Your task to perform on an android device: open app "HBO Max: Stream TV & Movies" (install if not already installed) Image 0: 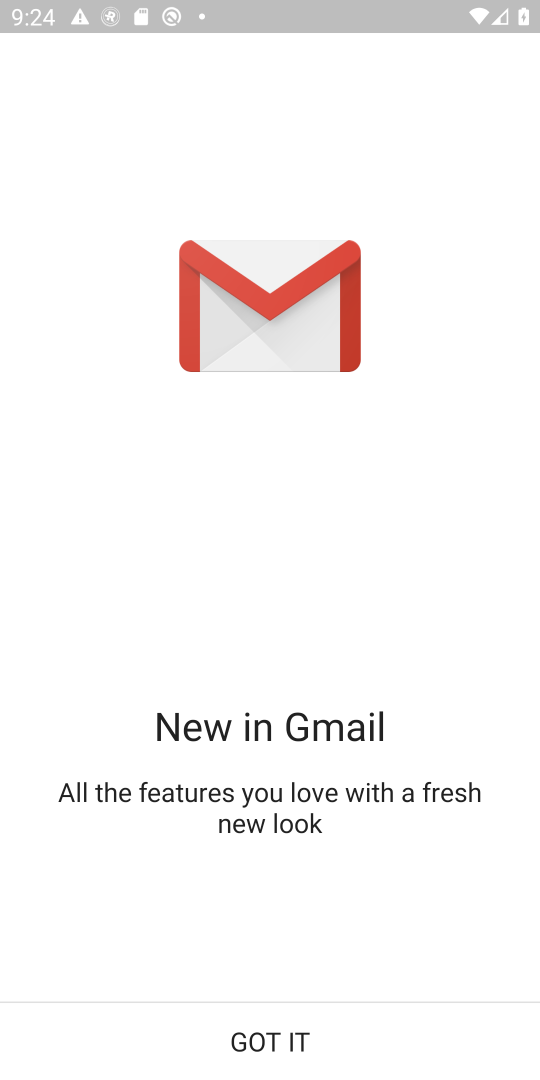
Step 0: press home button
Your task to perform on an android device: open app "HBO Max: Stream TV & Movies" (install if not already installed) Image 1: 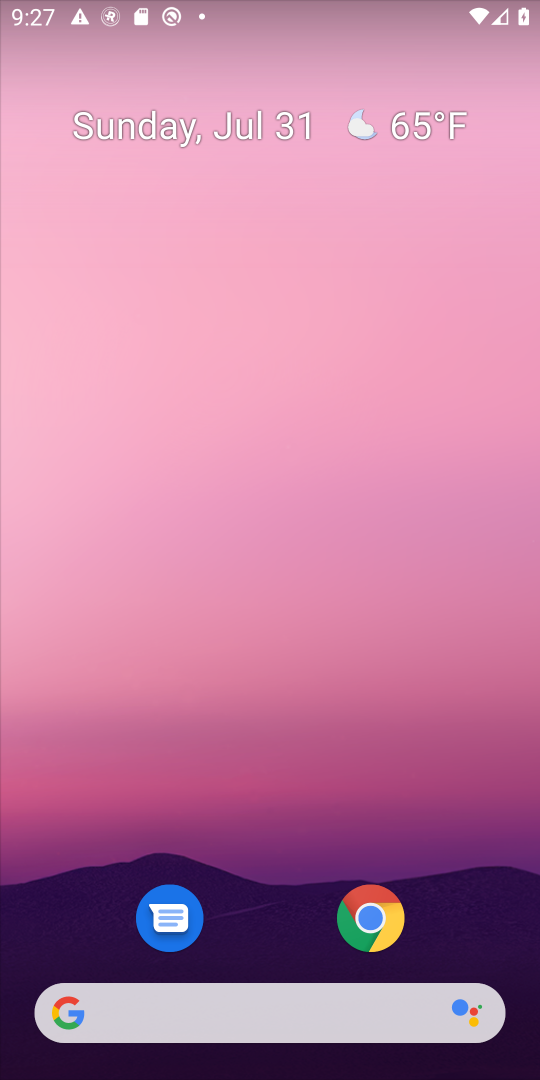
Step 1: drag from (325, 1035) to (537, 179)
Your task to perform on an android device: open app "HBO Max: Stream TV & Movies" (install if not already installed) Image 2: 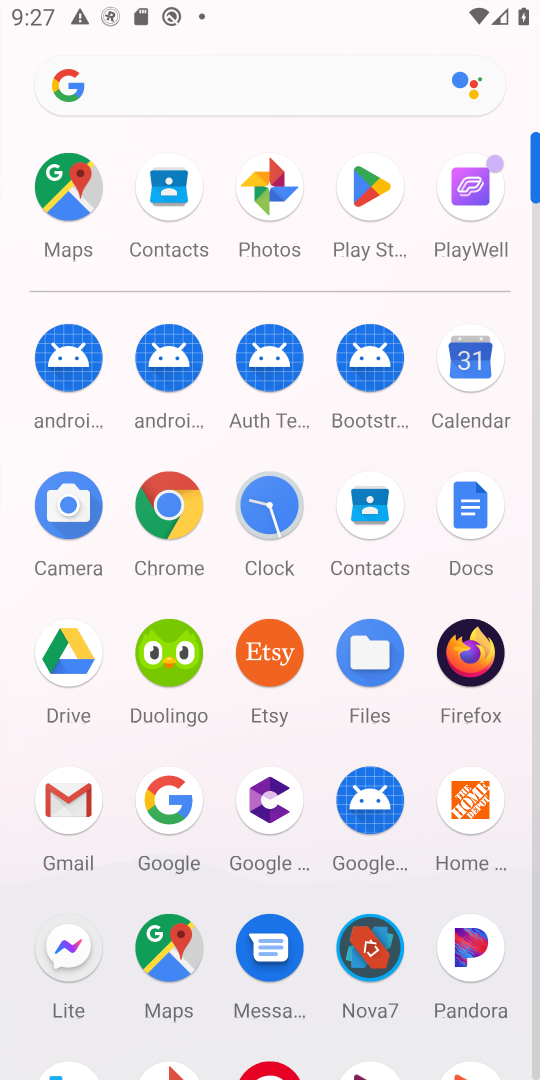
Step 2: click (390, 205)
Your task to perform on an android device: open app "HBO Max: Stream TV & Movies" (install if not already installed) Image 3: 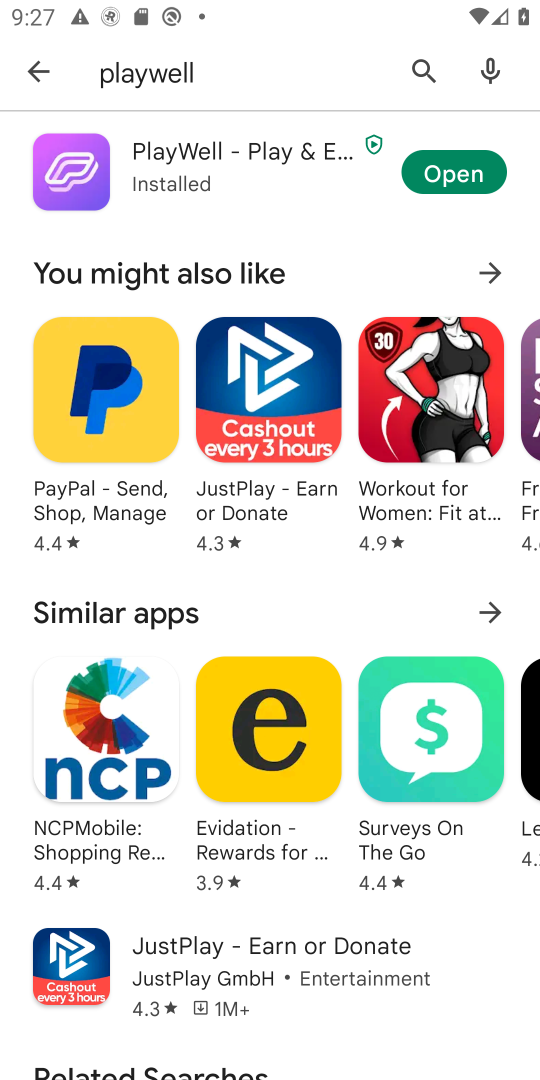
Step 3: click (431, 79)
Your task to perform on an android device: open app "HBO Max: Stream TV & Movies" (install if not already installed) Image 4: 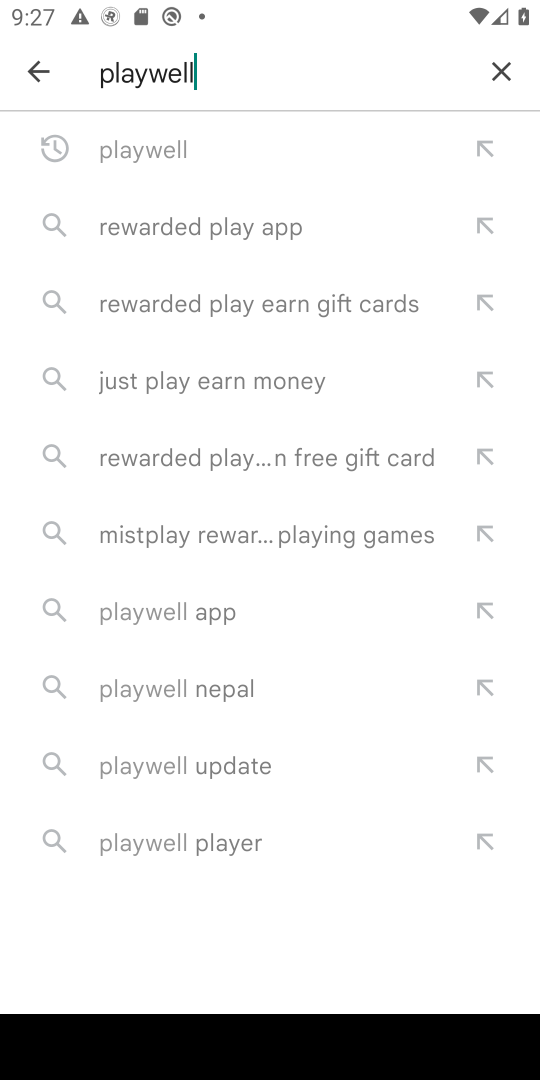
Step 4: click (501, 90)
Your task to perform on an android device: open app "HBO Max: Stream TV & Movies" (install if not already installed) Image 5: 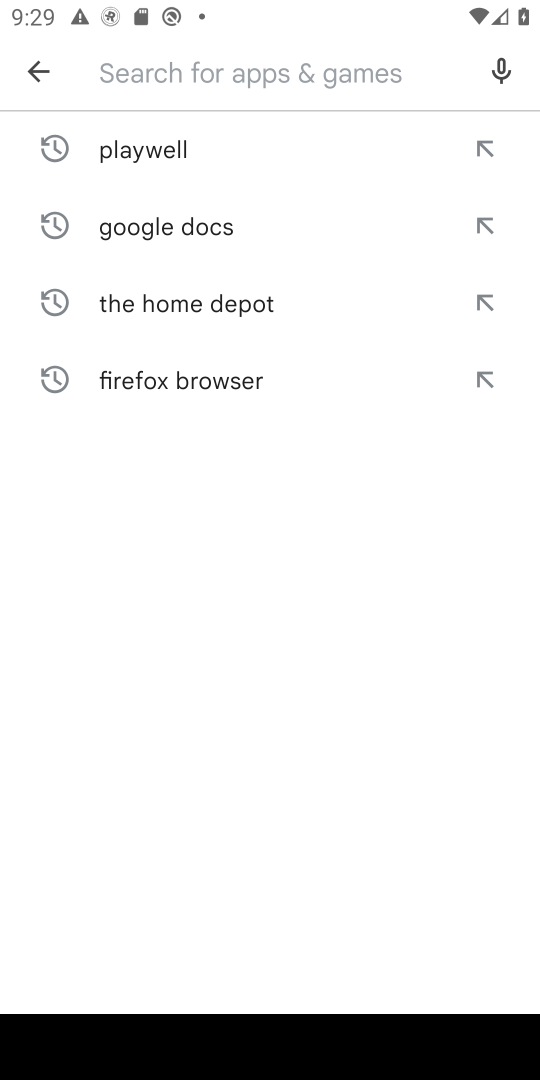
Step 5: type "HBO Max: Stream TV & Movies"
Your task to perform on an android device: open app "HBO Max: Stream TV & Movies" (install if not already installed) Image 6: 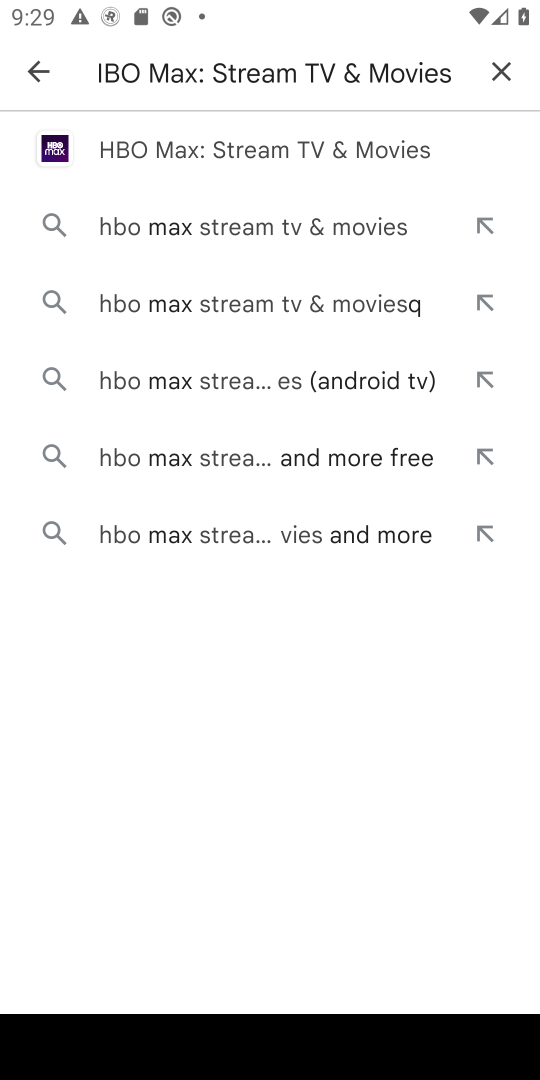
Step 6: click (396, 149)
Your task to perform on an android device: open app "HBO Max: Stream TV & Movies" (install if not already installed) Image 7: 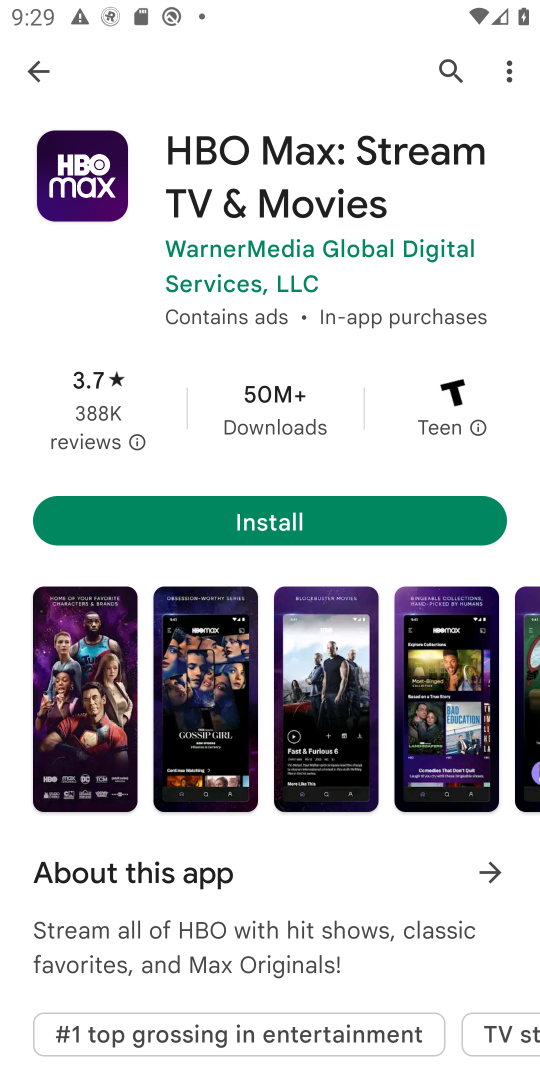
Step 7: click (443, 525)
Your task to perform on an android device: open app "HBO Max: Stream TV & Movies" (install if not already installed) Image 8: 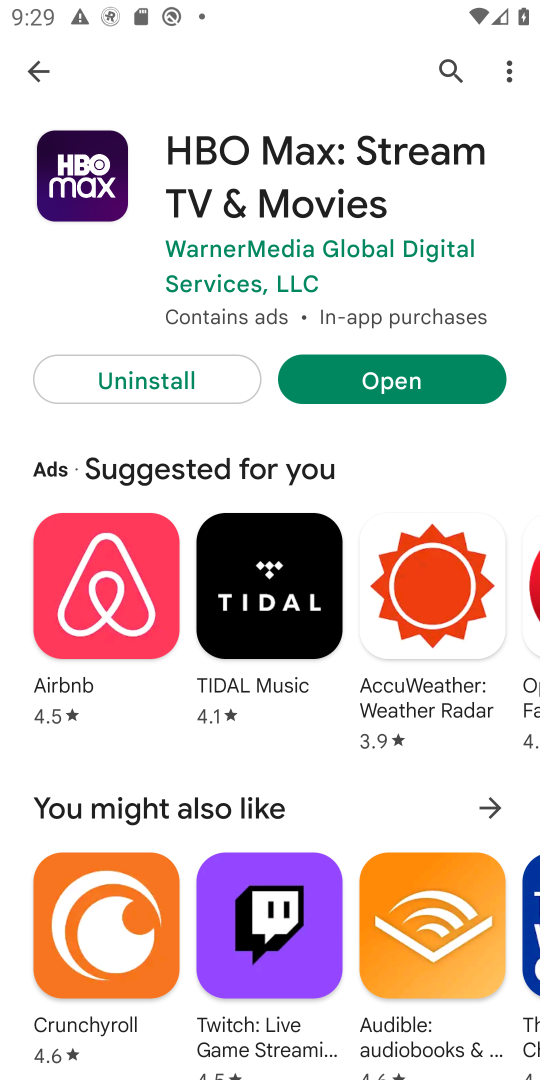
Step 8: click (390, 375)
Your task to perform on an android device: open app "HBO Max: Stream TV & Movies" (install if not already installed) Image 9: 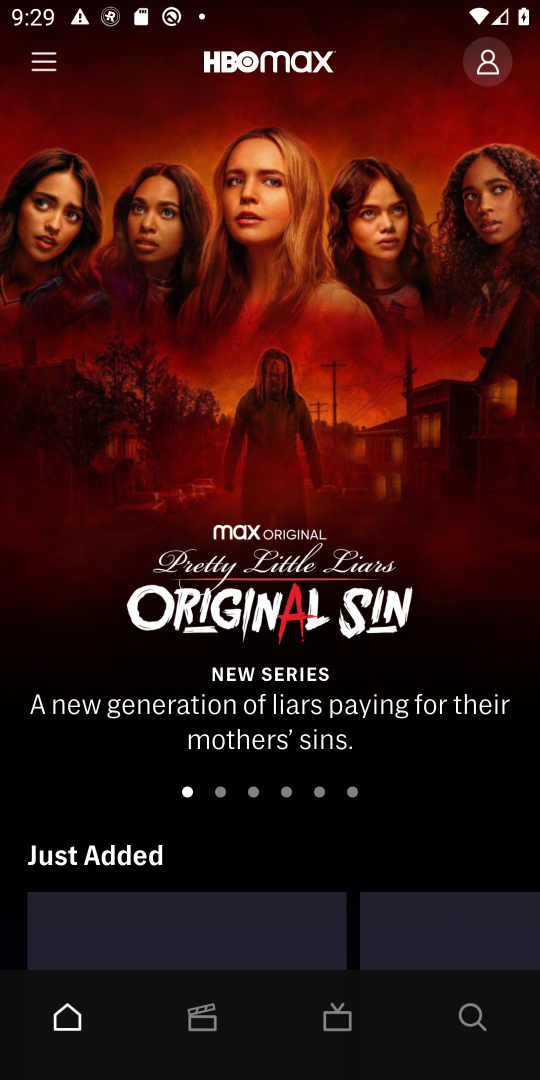
Step 9: task complete